Your task to perform on an android device: Go to Amazon Image 0: 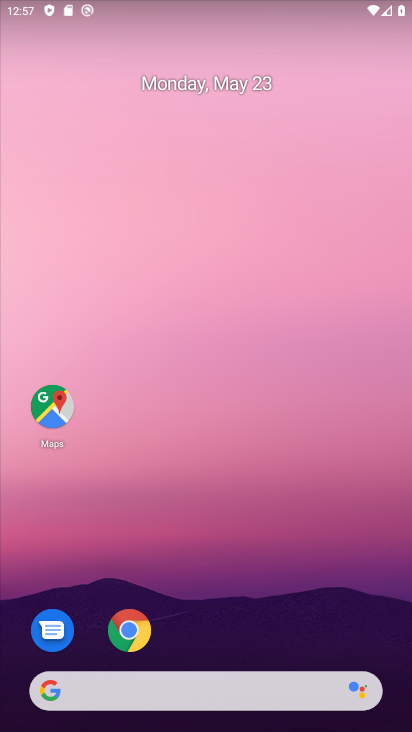
Step 0: drag from (314, 215) to (311, 138)
Your task to perform on an android device: Go to Amazon Image 1: 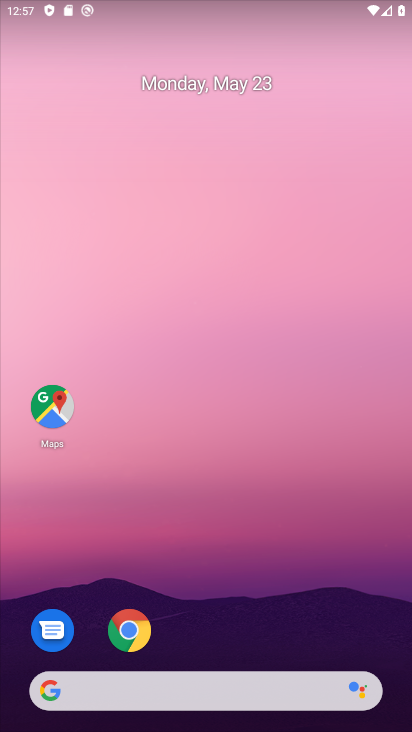
Step 1: drag from (335, 567) to (344, 98)
Your task to perform on an android device: Go to Amazon Image 2: 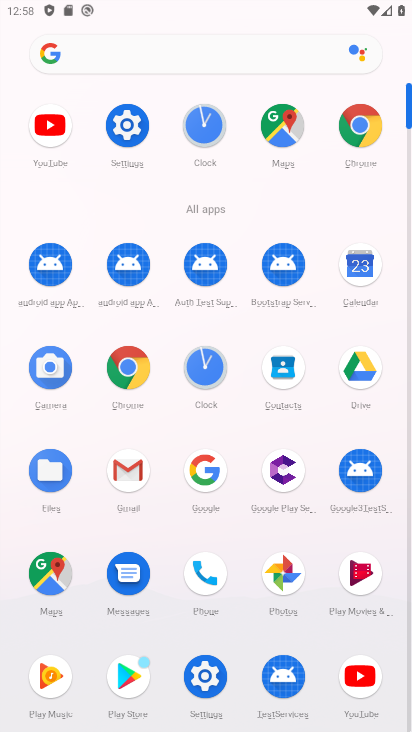
Step 2: click (145, 374)
Your task to perform on an android device: Go to Amazon Image 3: 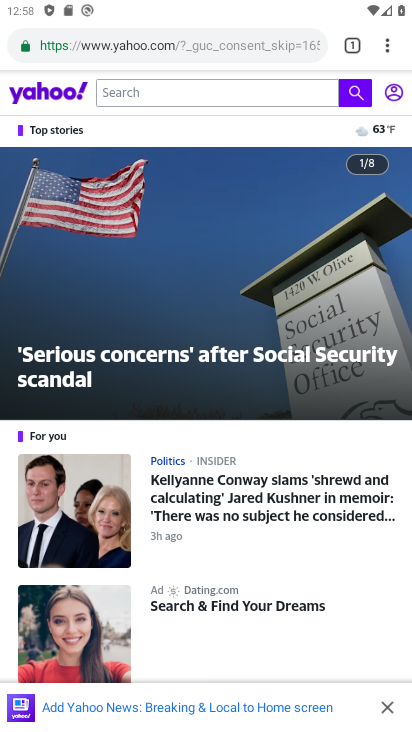
Step 3: click (362, 45)
Your task to perform on an android device: Go to Amazon Image 4: 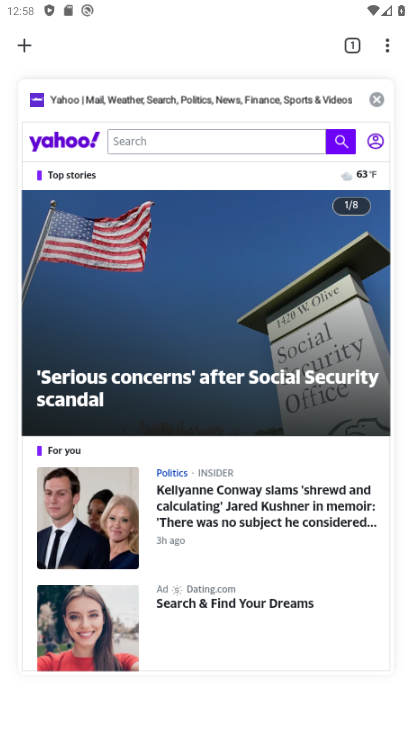
Step 4: click (33, 38)
Your task to perform on an android device: Go to Amazon Image 5: 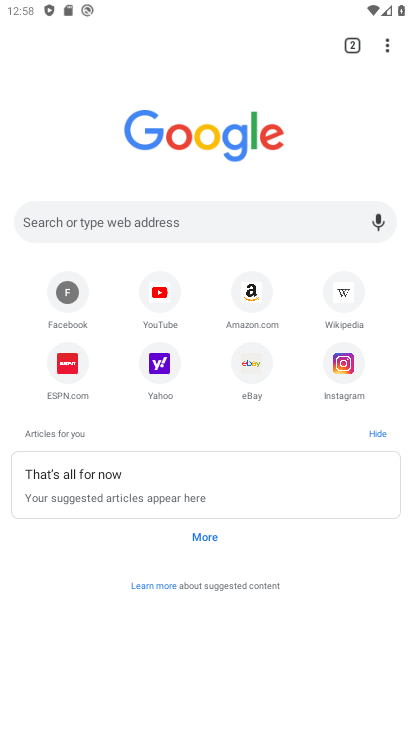
Step 5: click (256, 302)
Your task to perform on an android device: Go to Amazon Image 6: 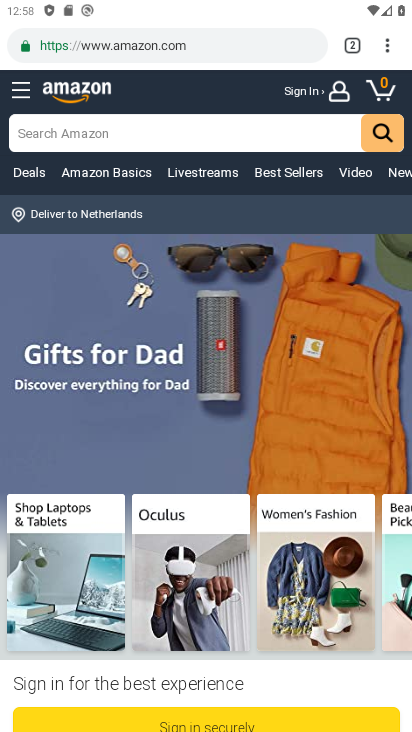
Step 6: task complete